Your task to perform on an android device: refresh tabs in the chrome app Image 0: 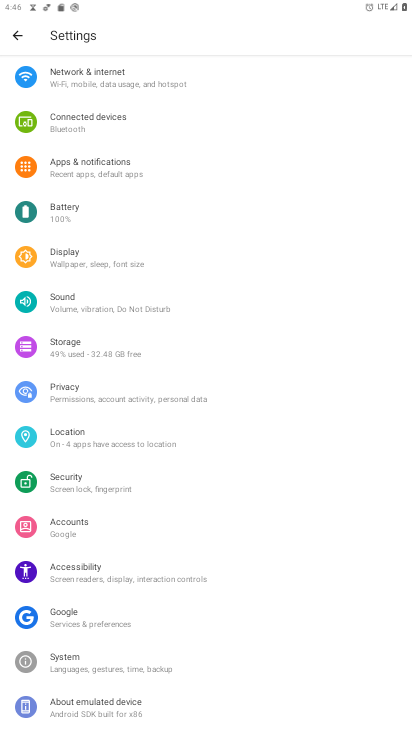
Step 0: press home button
Your task to perform on an android device: refresh tabs in the chrome app Image 1: 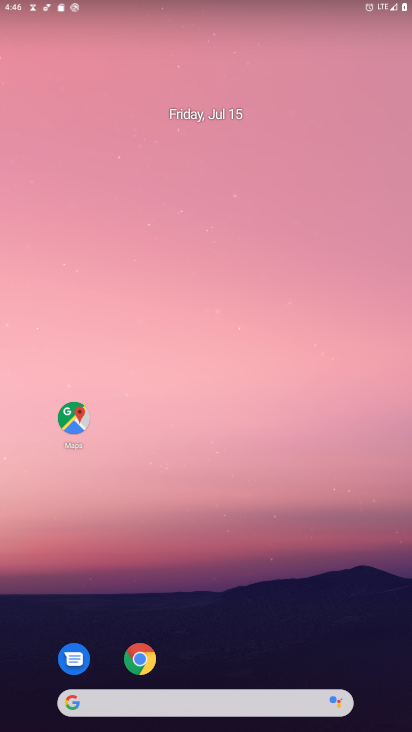
Step 1: drag from (314, 690) to (313, 167)
Your task to perform on an android device: refresh tabs in the chrome app Image 2: 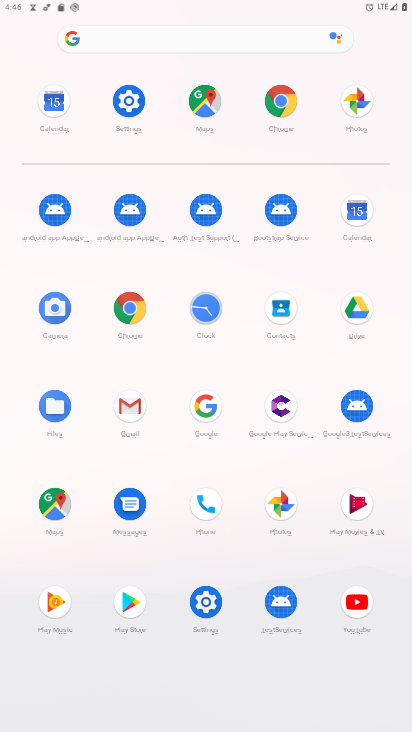
Step 2: click (133, 311)
Your task to perform on an android device: refresh tabs in the chrome app Image 3: 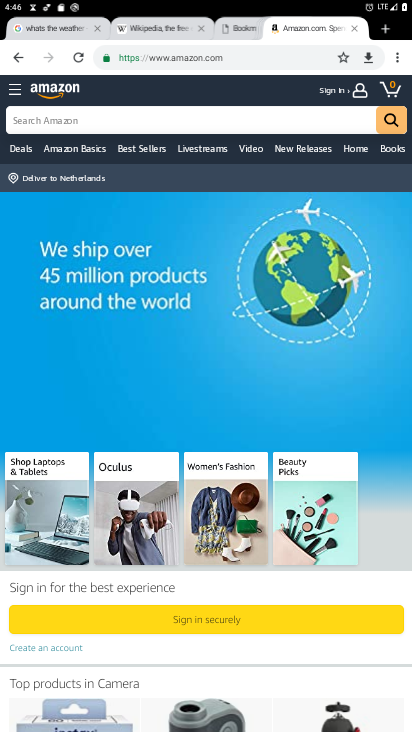
Step 3: click (81, 53)
Your task to perform on an android device: refresh tabs in the chrome app Image 4: 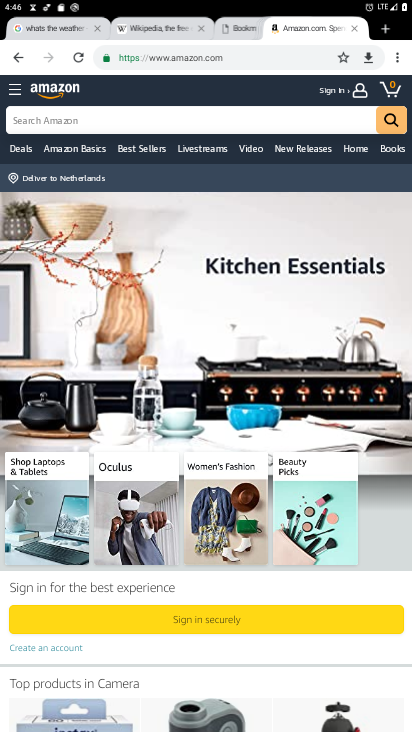
Step 4: task complete